Your task to perform on an android device: Open Chrome and go to the settings page Image 0: 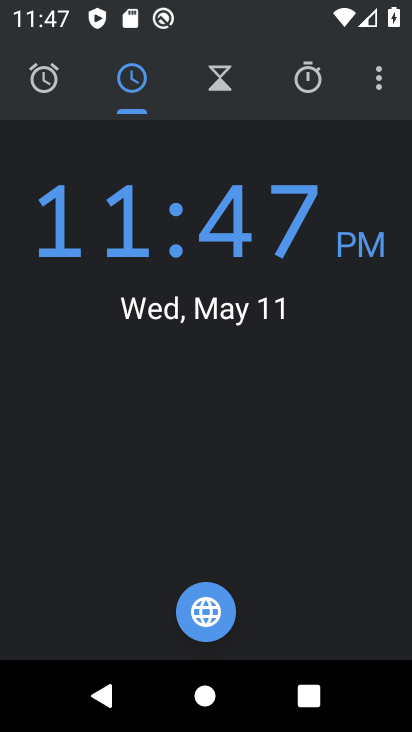
Step 0: press home button
Your task to perform on an android device: Open Chrome and go to the settings page Image 1: 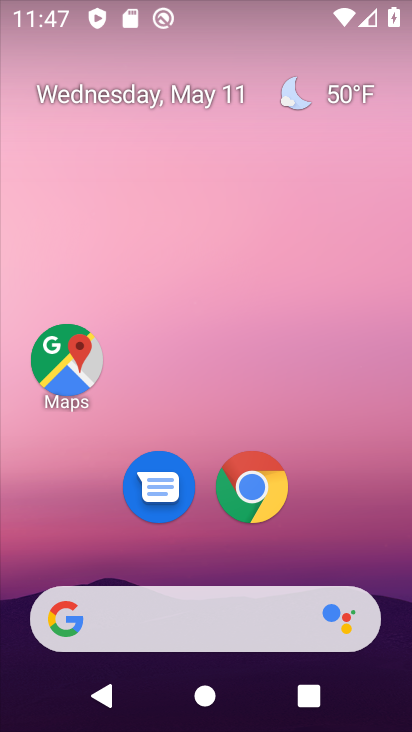
Step 1: click (252, 494)
Your task to perform on an android device: Open Chrome and go to the settings page Image 2: 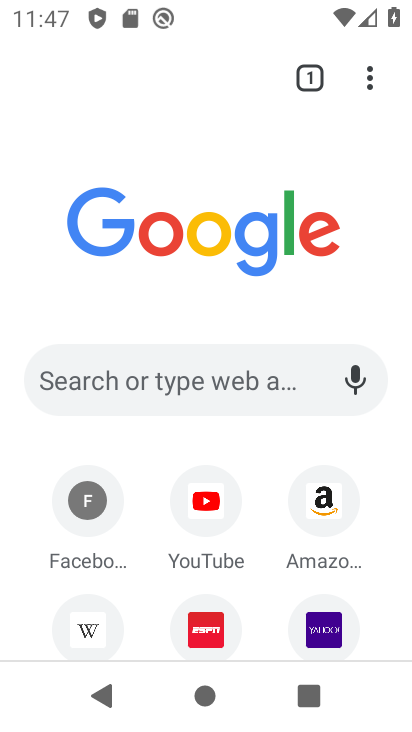
Step 2: click (372, 79)
Your task to perform on an android device: Open Chrome and go to the settings page Image 3: 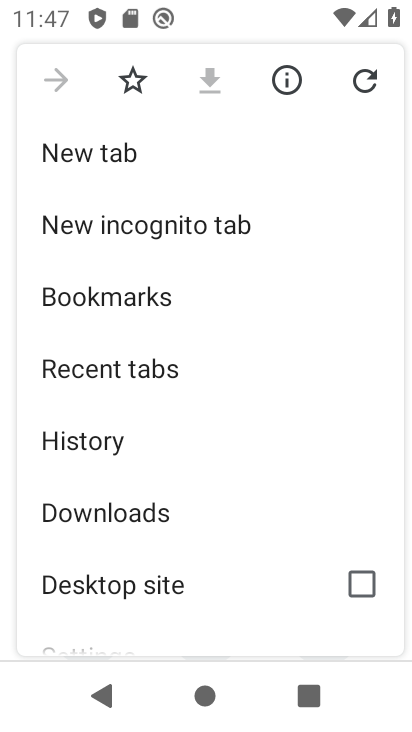
Step 3: drag from (126, 510) to (235, 36)
Your task to perform on an android device: Open Chrome and go to the settings page Image 4: 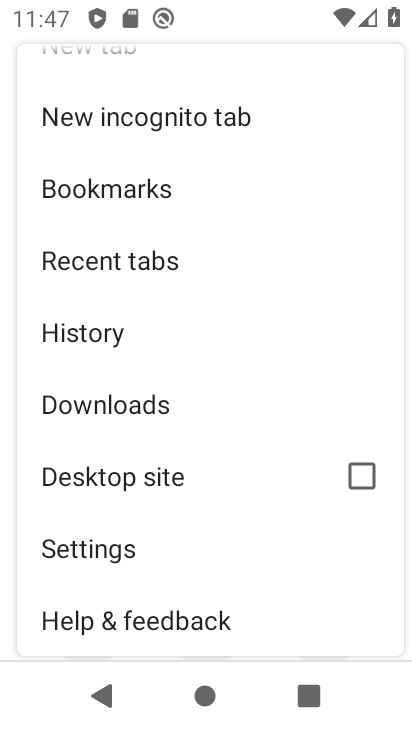
Step 4: click (75, 547)
Your task to perform on an android device: Open Chrome and go to the settings page Image 5: 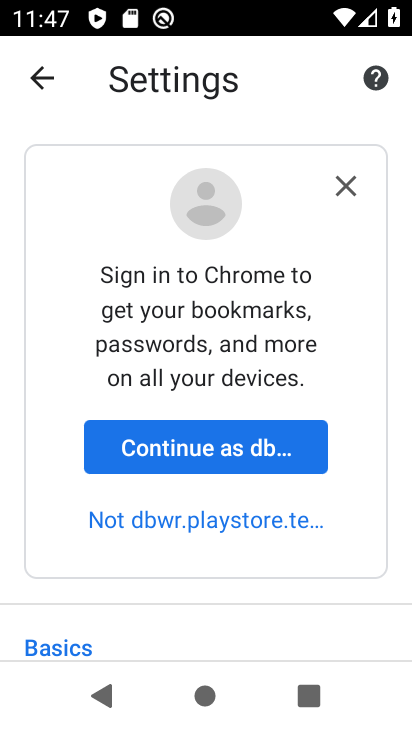
Step 5: task complete